Your task to perform on an android device: toggle priority inbox in the gmail app Image 0: 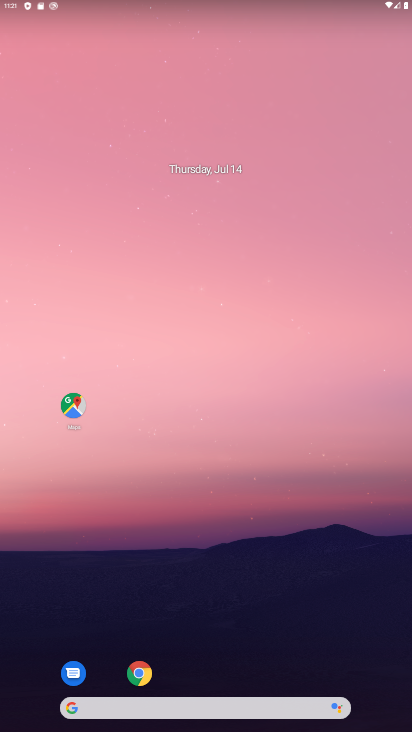
Step 0: drag from (268, 600) to (231, 22)
Your task to perform on an android device: toggle priority inbox in the gmail app Image 1: 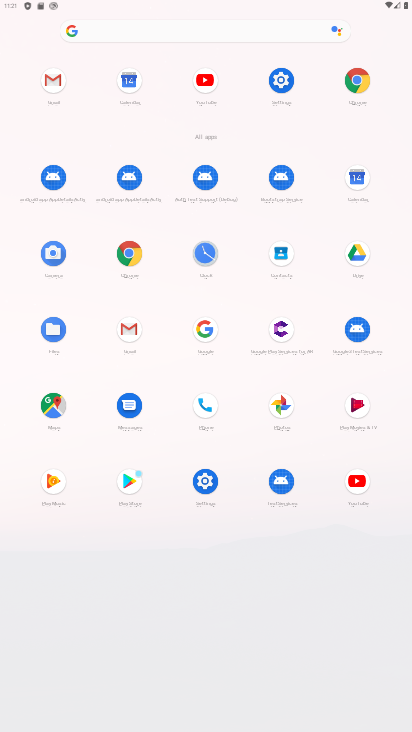
Step 1: click (124, 330)
Your task to perform on an android device: toggle priority inbox in the gmail app Image 2: 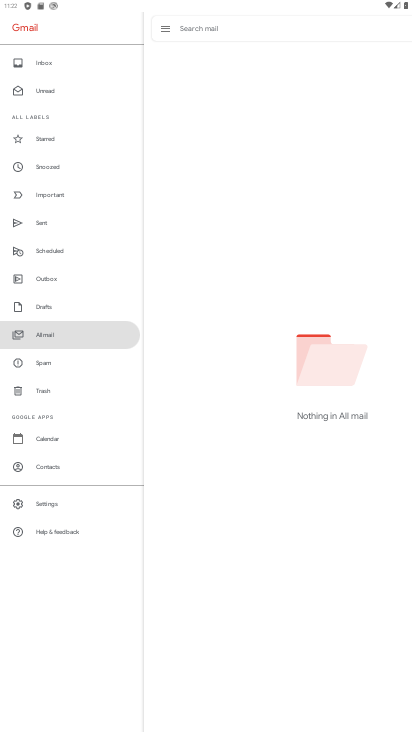
Step 2: click (47, 507)
Your task to perform on an android device: toggle priority inbox in the gmail app Image 3: 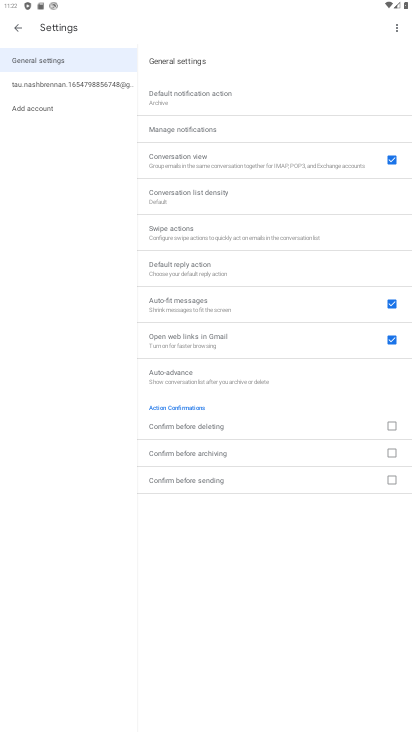
Step 3: click (108, 81)
Your task to perform on an android device: toggle priority inbox in the gmail app Image 4: 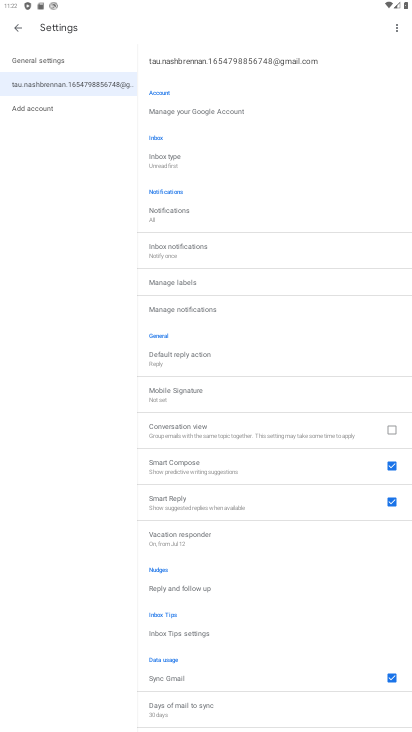
Step 4: click (184, 157)
Your task to perform on an android device: toggle priority inbox in the gmail app Image 5: 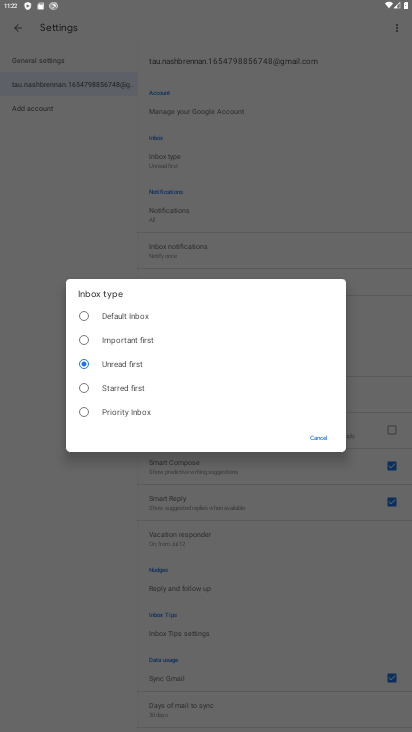
Step 5: click (115, 406)
Your task to perform on an android device: toggle priority inbox in the gmail app Image 6: 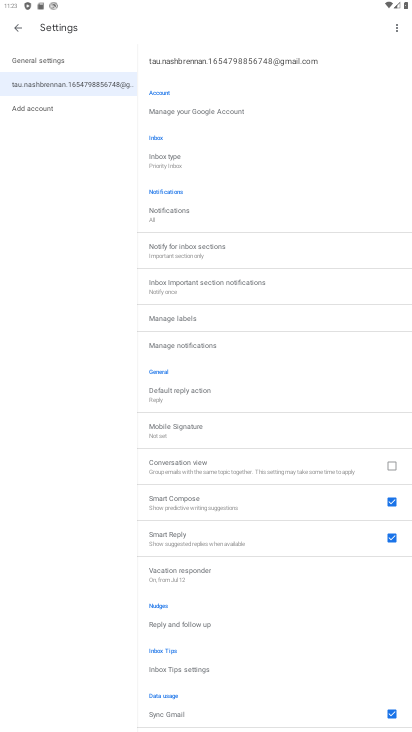
Step 6: task complete